Your task to perform on an android device: set default search engine in the chrome app Image 0: 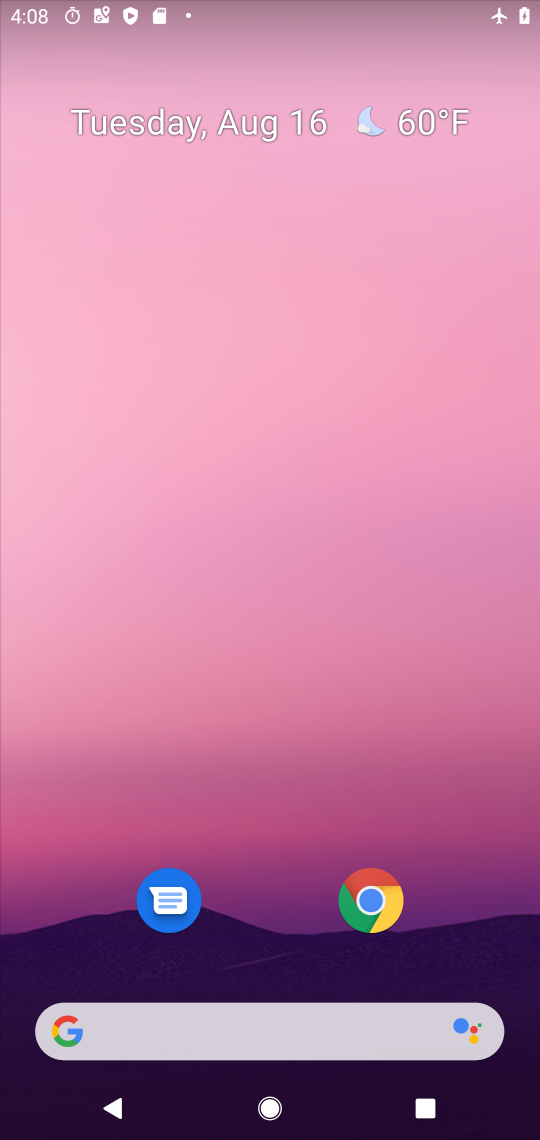
Step 0: click (370, 897)
Your task to perform on an android device: set default search engine in the chrome app Image 1: 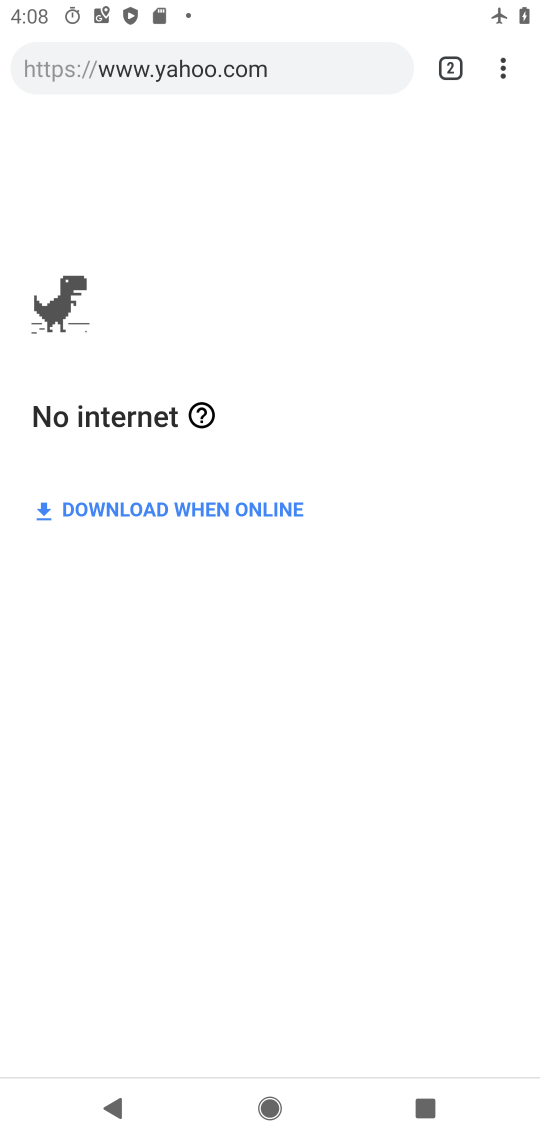
Step 1: click (503, 71)
Your task to perform on an android device: set default search engine in the chrome app Image 2: 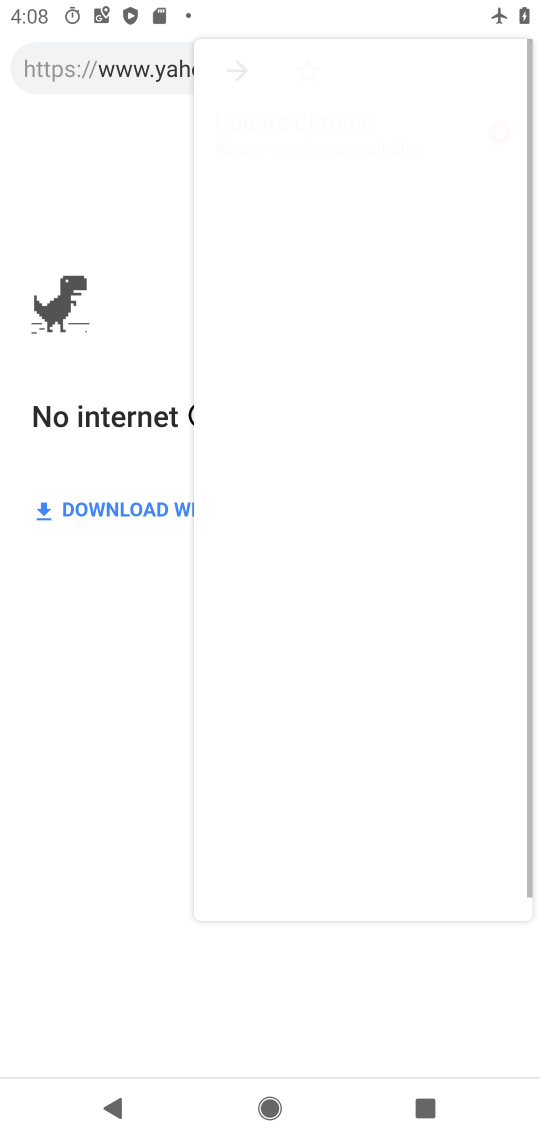
Step 2: drag from (497, 77) to (265, 851)
Your task to perform on an android device: set default search engine in the chrome app Image 3: 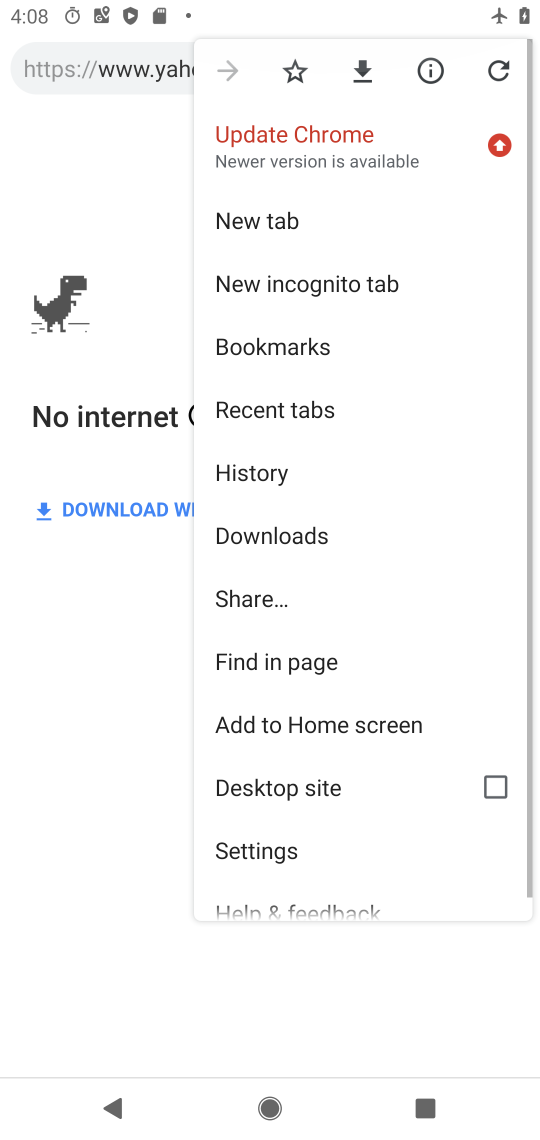
Step 3: drag from (285, 918) to (263, 849)
Your task to perform on an android device: set default search engine in the chrome app Image 4: 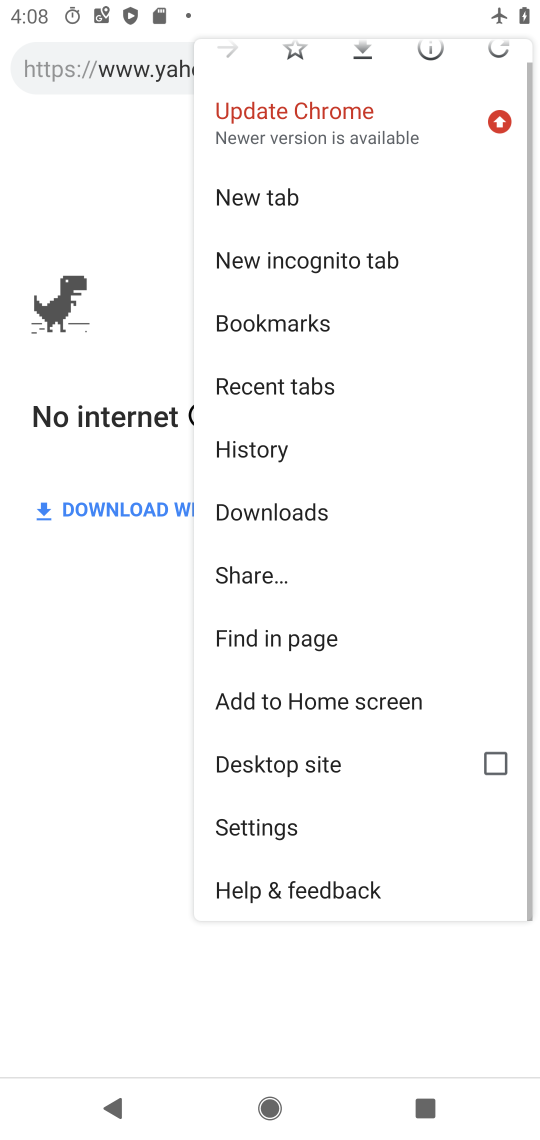
Step 4: click (252, 819)
Your task to perform on an android device: set default search engine in the chrome app Image 5: 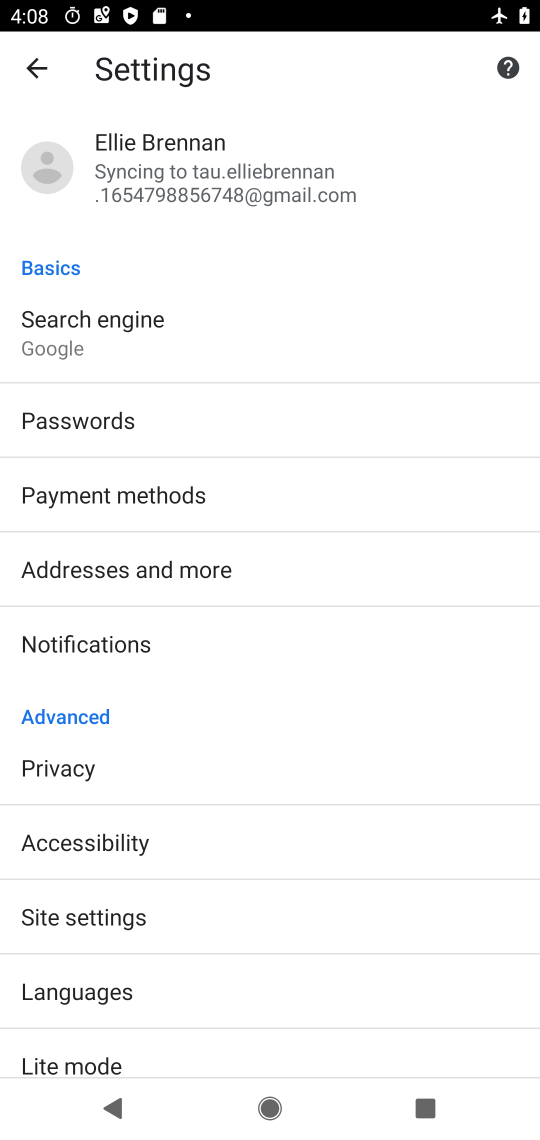
Step 5: click (73, 334)
Your task to perform on an android device: set default search engine in the chrome app Image 6: 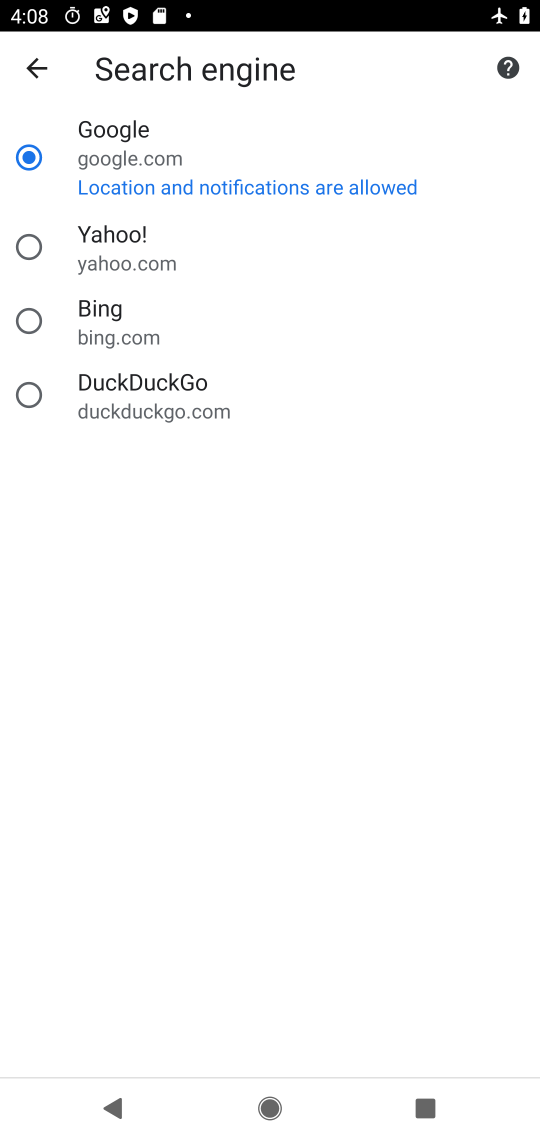
Step 6: click (26, 246)
Your task to perform on an android device: set default search engine in the chrome app Image 7: 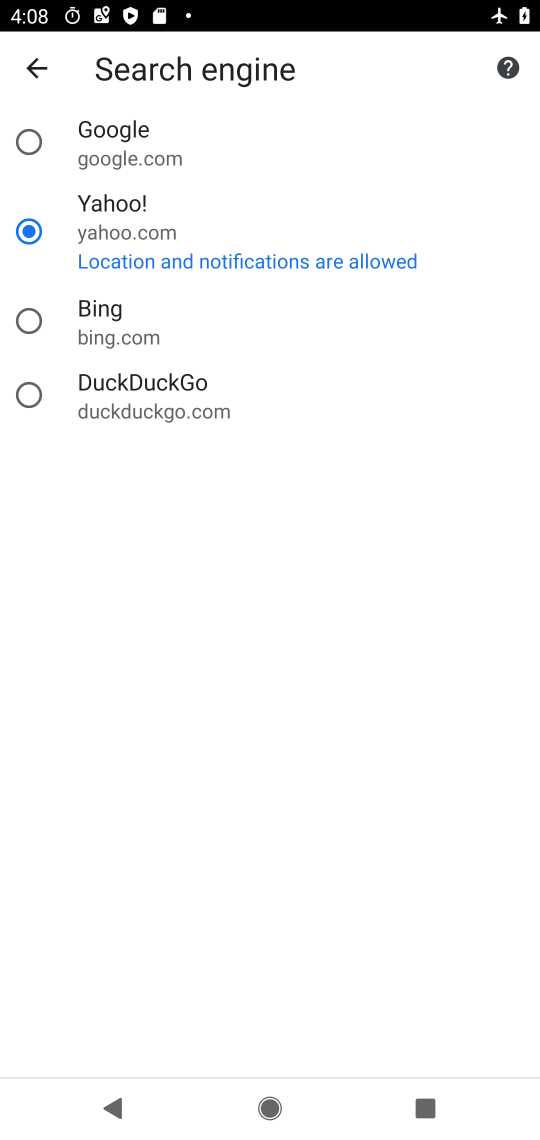
Step 7: task complete